Your task to perform on an android device: open app "VLC for Android" (install if not already installed) and enter user name: "Yves@outlook.com" and password: "internally" Image 0: 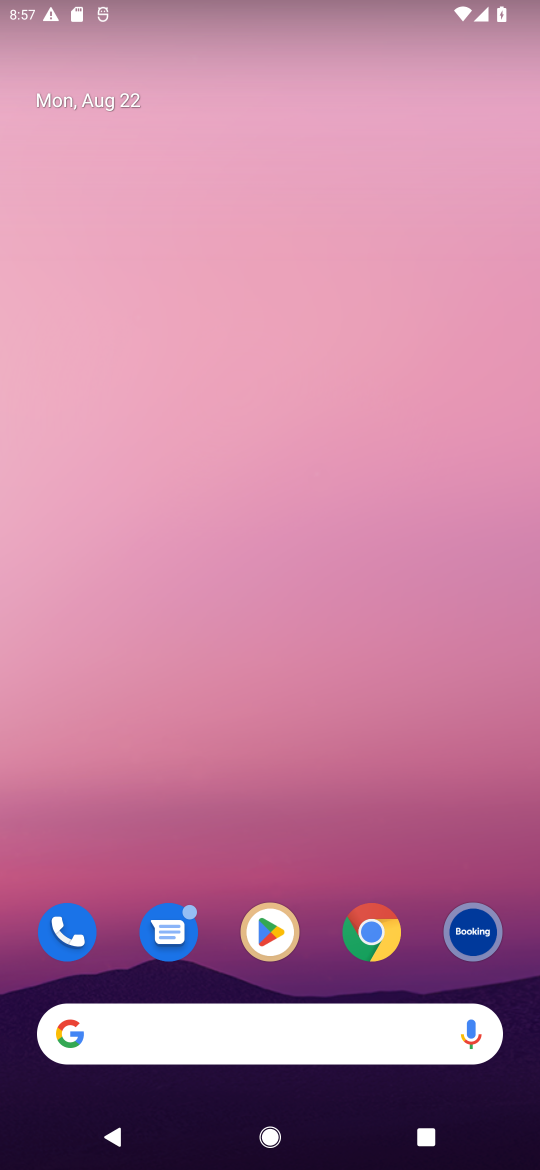
Step 0: click (399, 946)
Your task to perform on an android device: open app "VLC for Android" (install if not already installed) and enter user name: "Yves@outlook.com" and password: "internally" Image 1: 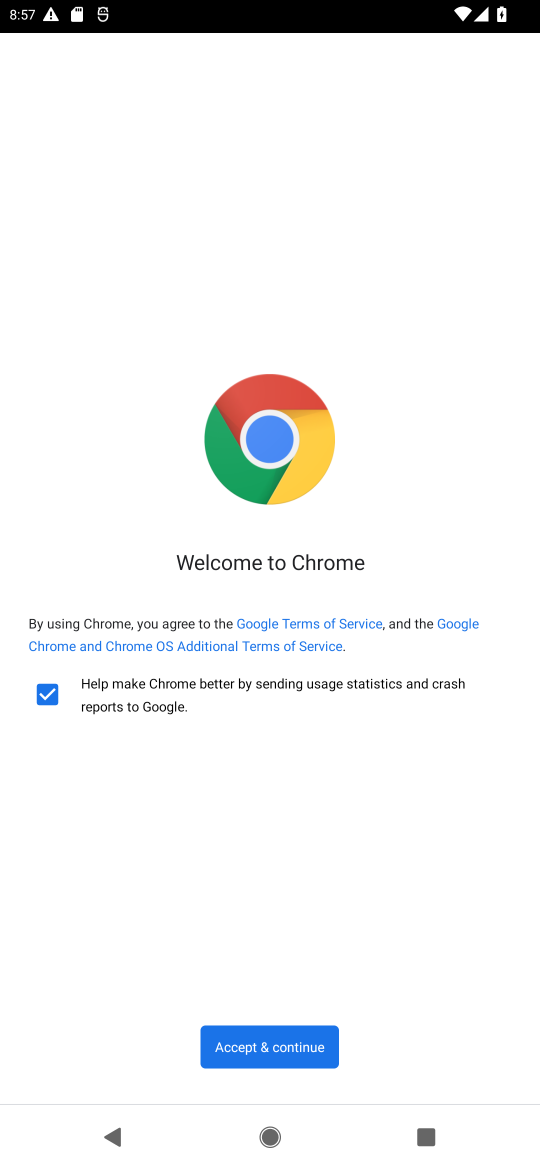
Step 1: press home button
Your task to perform on an android device: open app "VLC for Android" (install if not already installed) and enter user name: "Yves@outlook.com" and password: "internally" Image 2: 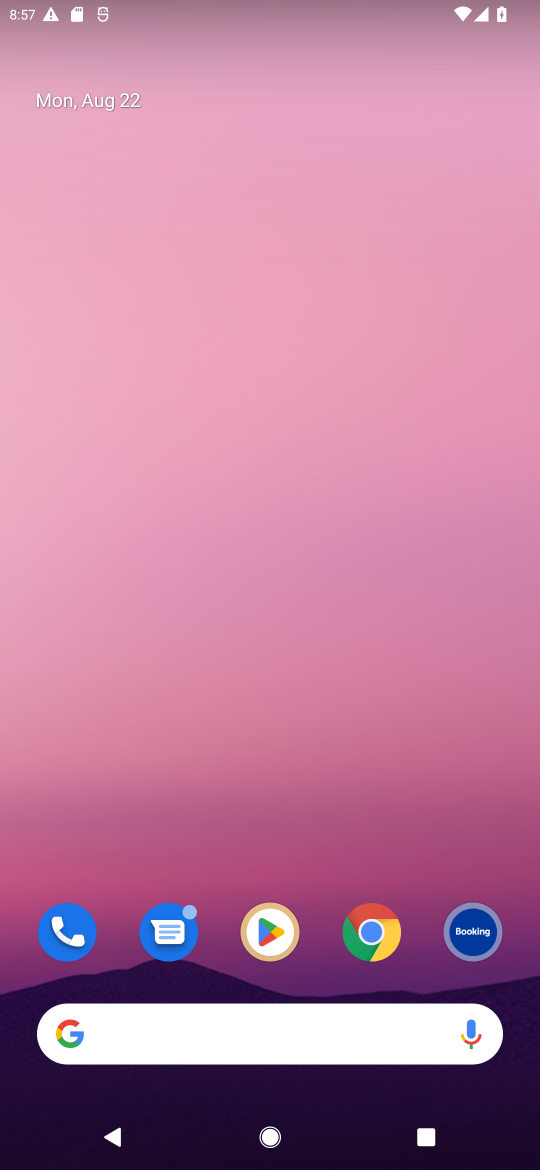
Step 2: click (250, 924)
Your task to perform on an android device: open app "VLC for Android" (install if not already installed) and enter user name: "Yves@outlook.com" and password: "internally" Image 3: 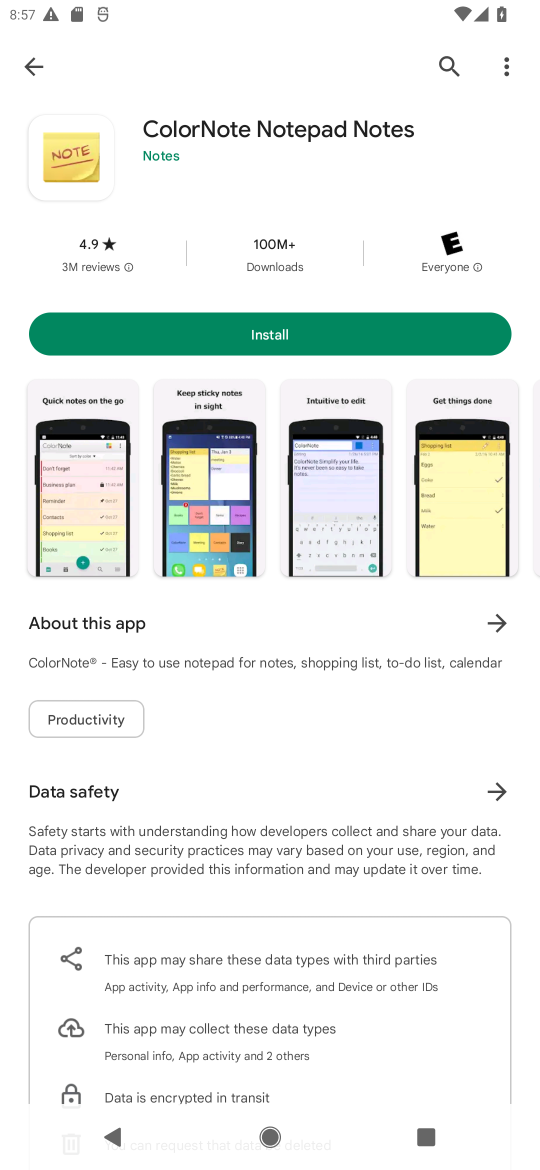
Step 3: click (196, 344)
Your task to perform on an android device: open app "VLC for Android" (install if not already installed) and enter user name: "Yves@outlook.com" and password: "internally" Image 4: 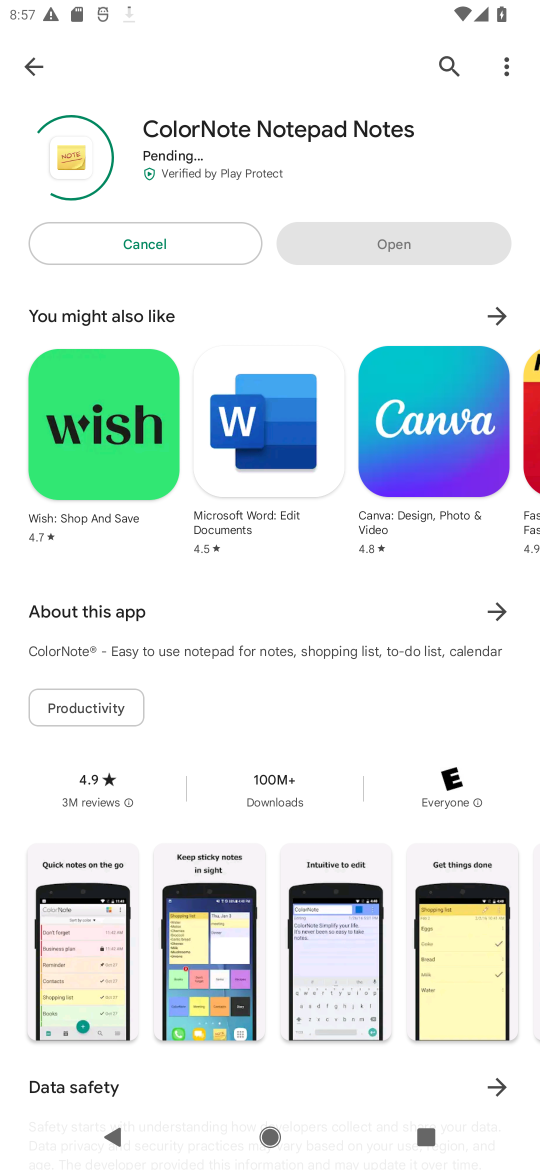
Step 4: click (437, 68)
Your task to perform on an android device: open app "VLC for Android" (install if not already installed) and enter user name: "Yves@outlook.com" and password: "internally" Image 5: 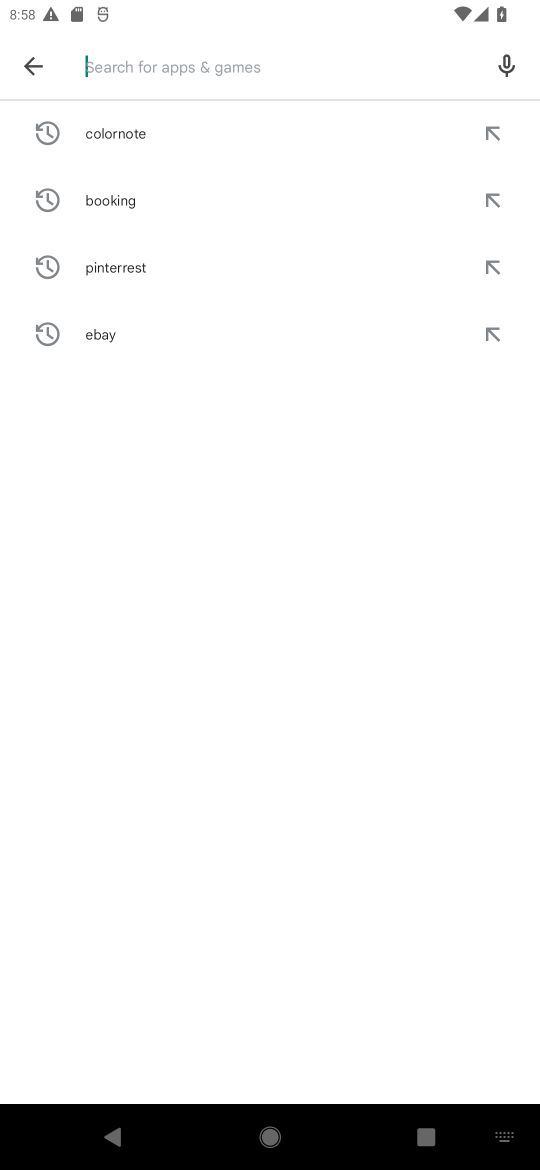
Step 5: type "vlc"
Your task to perform on an android device: open app "VLC for Android" (install if not already installed) and enter user name: "Yves@outlook.com" and password: "internally" Image 6: 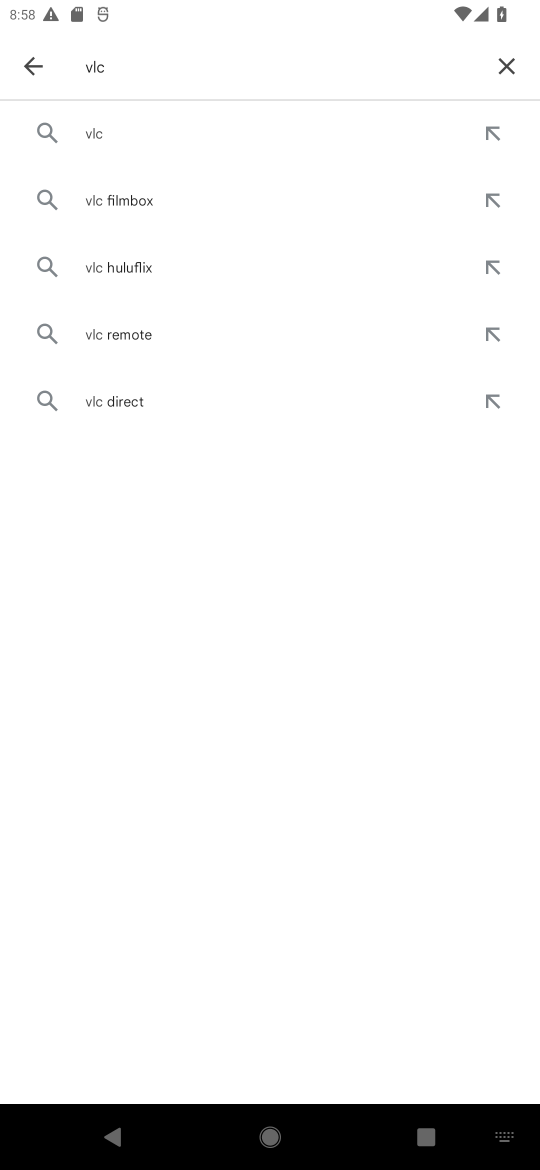
Step 6: click (226, 128)
Your task to perform on an android device: open app "VLC for Android" (install if not already installed) and enter user name: "Yves@outlook.com" and password: "internally" Image 7: 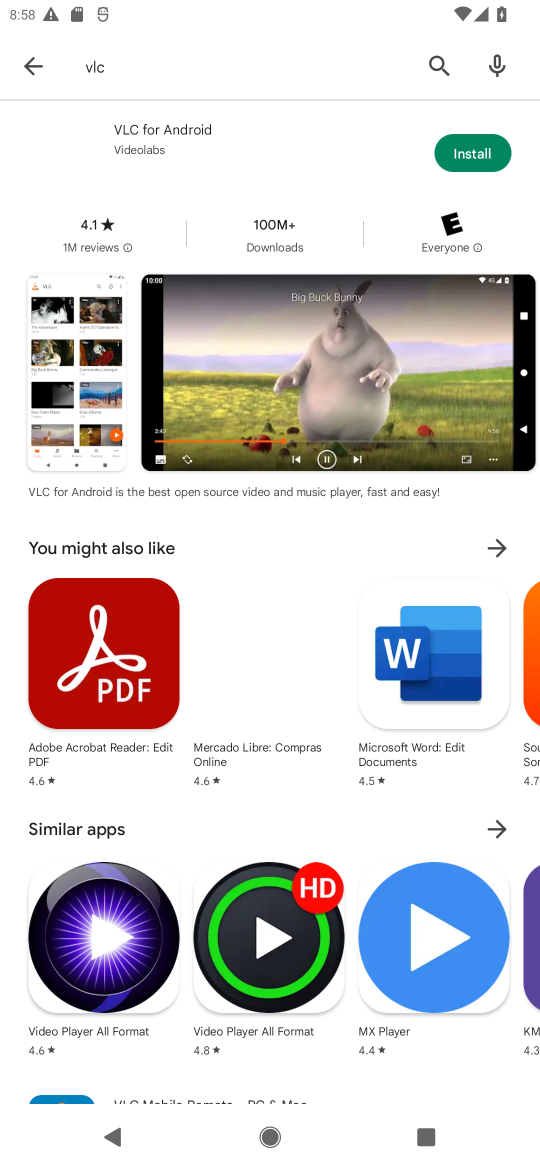
Step 7: click (467, 145)
Your task to perform on an android device: open app "VLC for Android" (install if not already installed) and enter user name: "Yves@outlook.com" and password: "internally" Image 8: 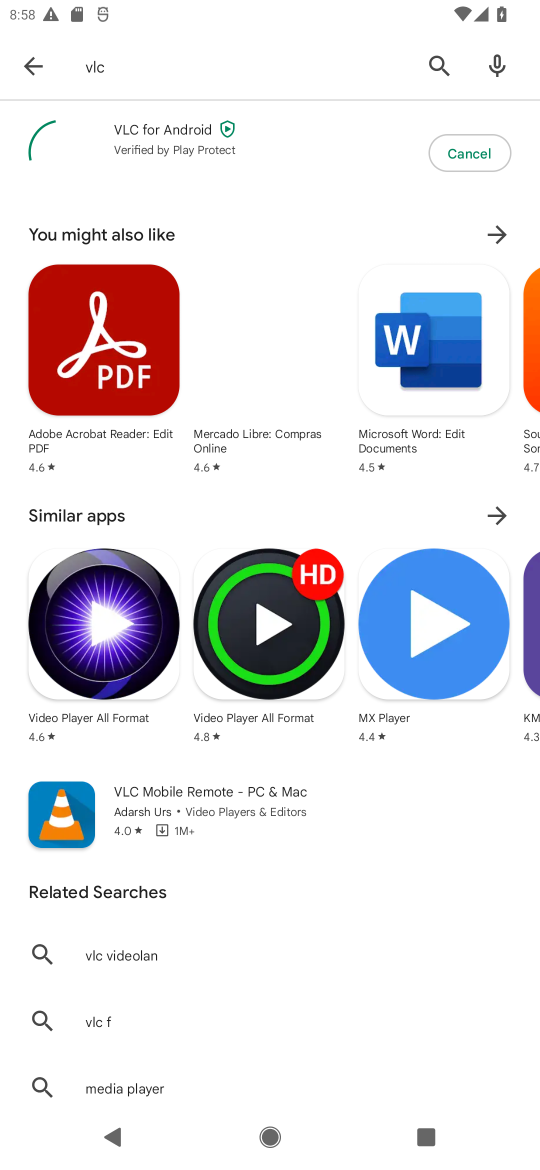
Step 8: task complete